Your task to perform on an android device: Show me the best 1080p monitor on Target.com Image 0: 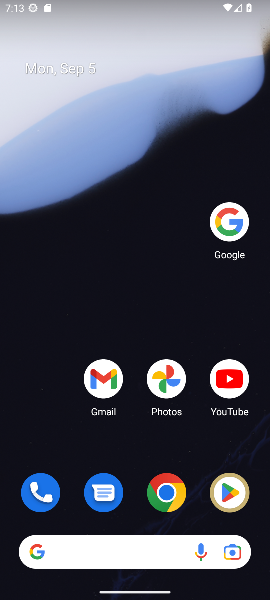
Step 0: click (230, 216)
Your task to perform on an android device: Show me the best 1080p monitor on Target.com Image 1: 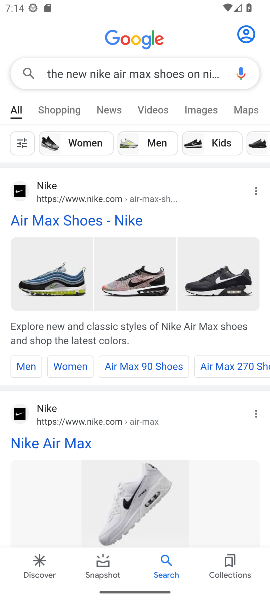
Step 1: click (119, 67)
Your task to perform on an android device: Show me the best 1080p monitor on Target.com Image 2: 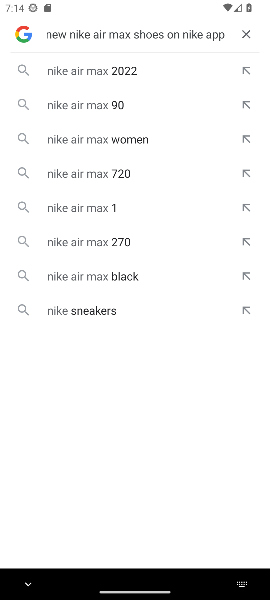
Step 2: click (247, 31)
Your task to perform on an android device: Show me the best 1080p monitor on Target.com Image 3: 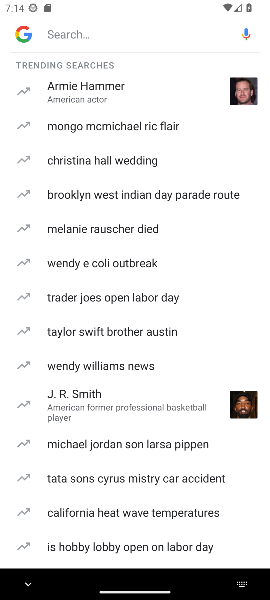
Step 3: click (163, 20)
Your task to perform on an android device: Show me the best 1080p monitor on Target.com Image 4: 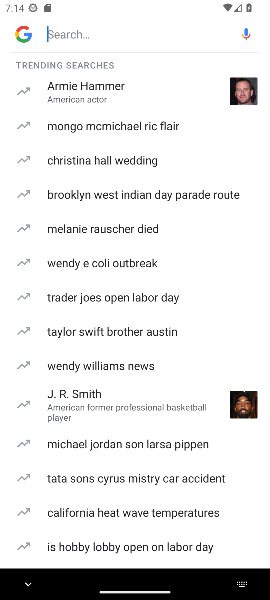
Step 4: type " the best 1080p monitor on Target.com "
Your task to perform on an android device: Show me the best 1080p monitor on Target.com Image 5: 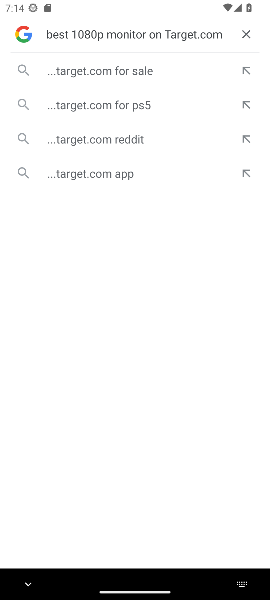
Step 5: click (117, 180)
Your task to perform on an android device: Show me the best 1080p monitor on Target.com Image 6: 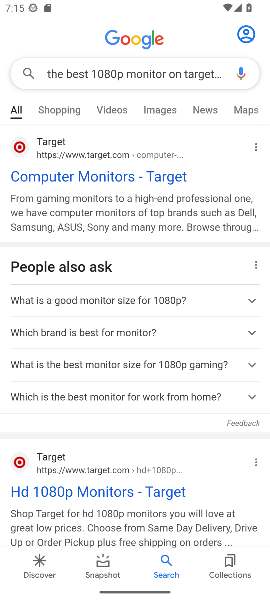
Step 6: click (136, 168)
Your task to perform on an android device: Show me the best 1080p monitor on Target.com Image 7: 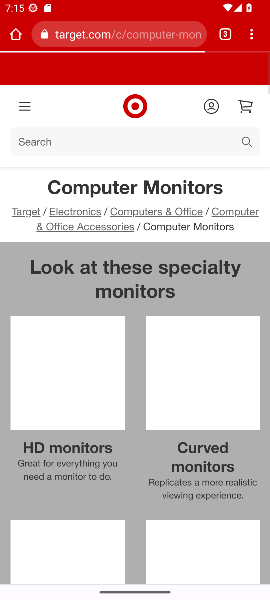
Step 7: task complete